Your task to perform on an android device: Find coffee shops on Maps Image 0: 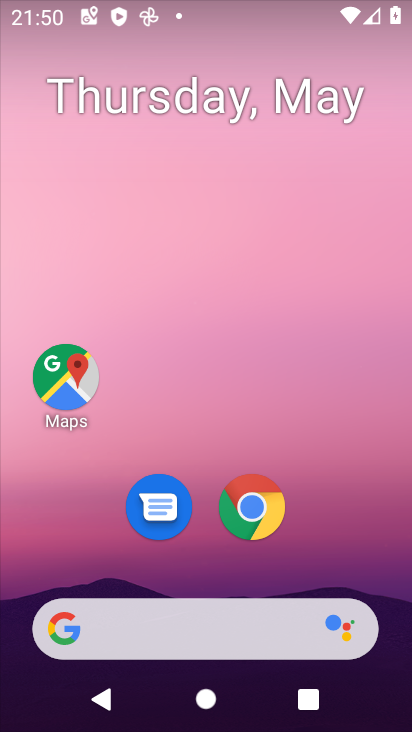
Step 0: drag from (290, 665) to (236, 237)
Your task to perform on an android device: Find coffee shops on Maps Image 1: 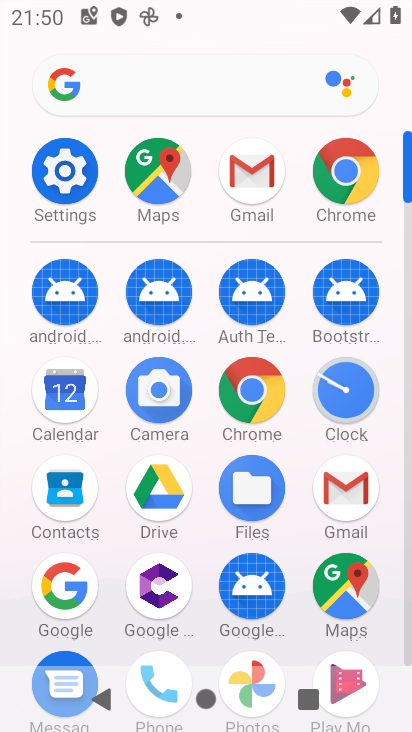
Step 1: click (157, 170)
Your task to perform on an android device: Find coffee shops on Maps Image 2: 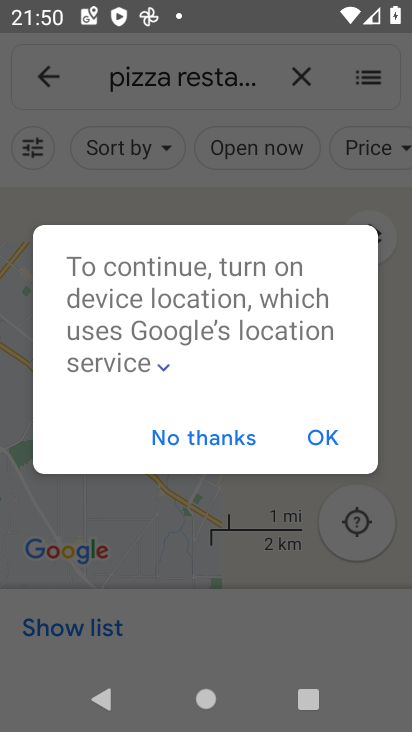
Step 2: click (203, 431)
Your task to perform on an android device: Find coffee shops on Maps Image 3: 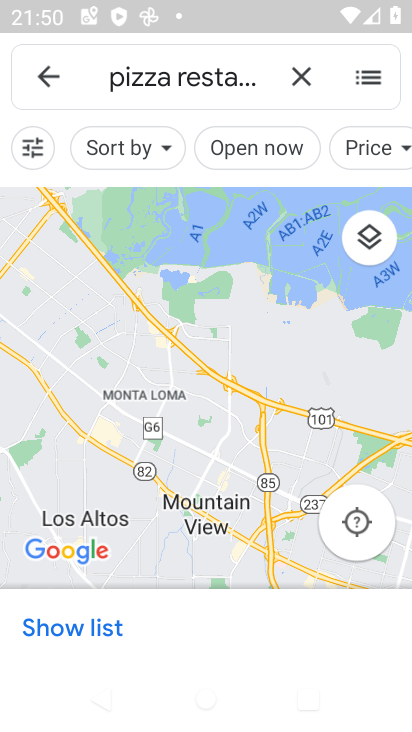
Step 3: click (304, 76)
Your task to perform on an android device: Find coffee shops on Maps Image 4: 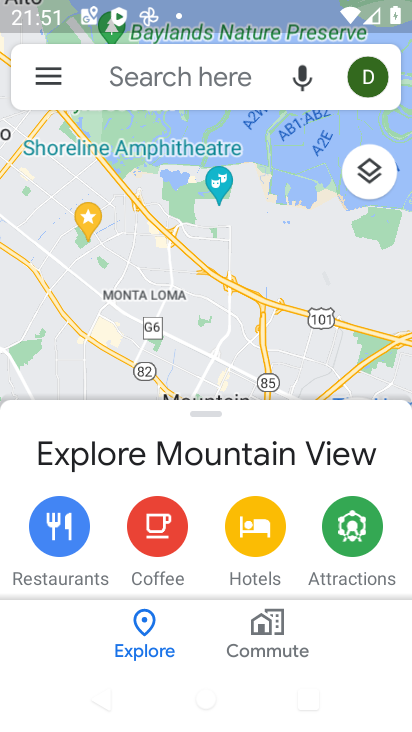
Step 4: click (165, 85)
Your task to perform on an android device: Find coffee shops on Maps Image 5: 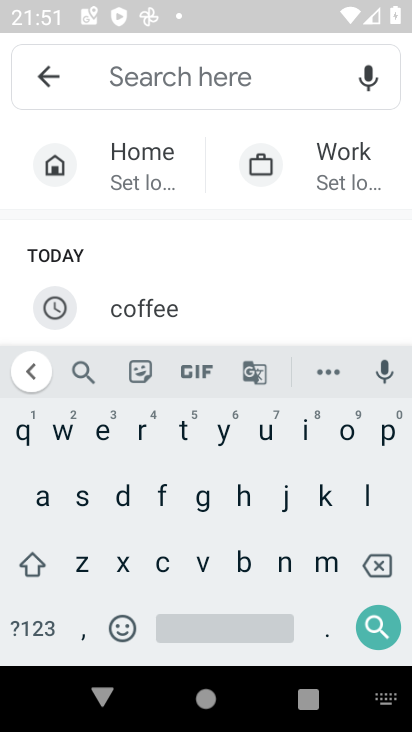
Step 5: click (153, 308)
Your task to perform on an android device: Find coffee shops on Maps Image 6: 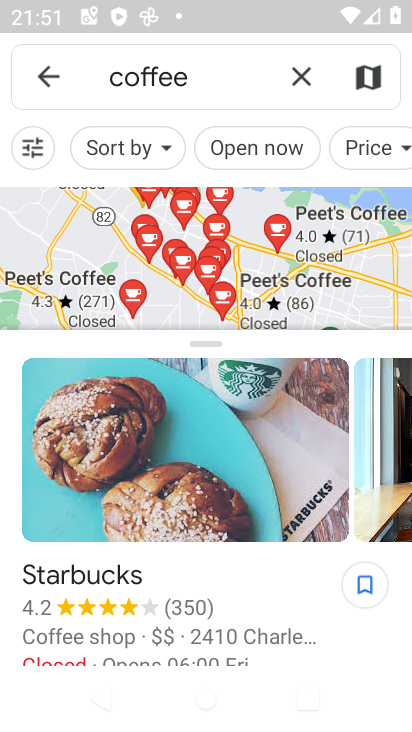
Step 6: task complete